Your task to perform on an android device: turn pop-ups on in chrome Image 0: 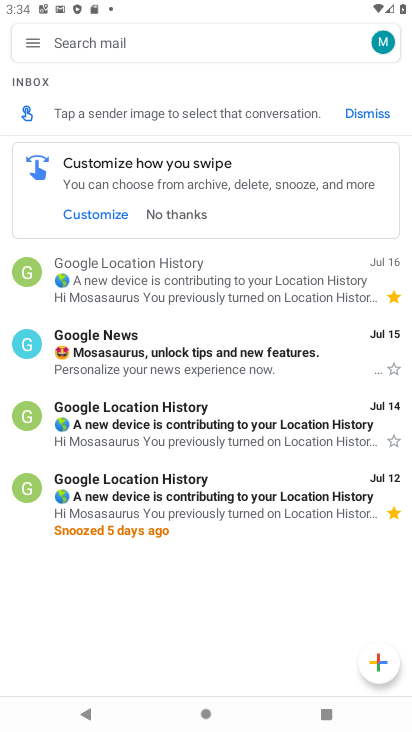
Step 0: press home button
Your task to perform on an android device: turn pop-ups on in chrome Image 1: 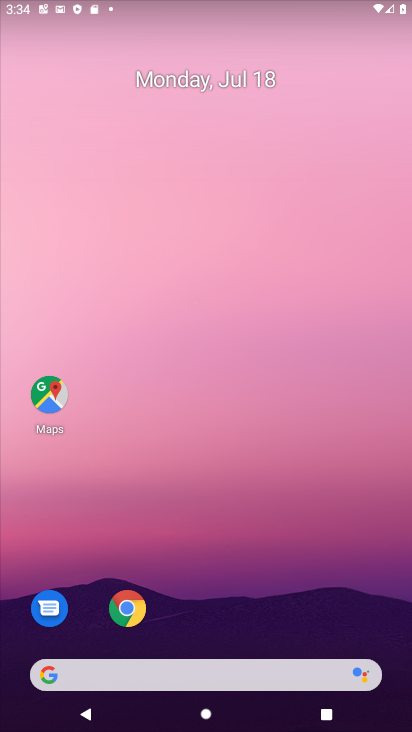
Step 1: drag from (214, 637) to (253, 285)
Your task to perform on an android device: turn pop-ups on in chrome Image 2: 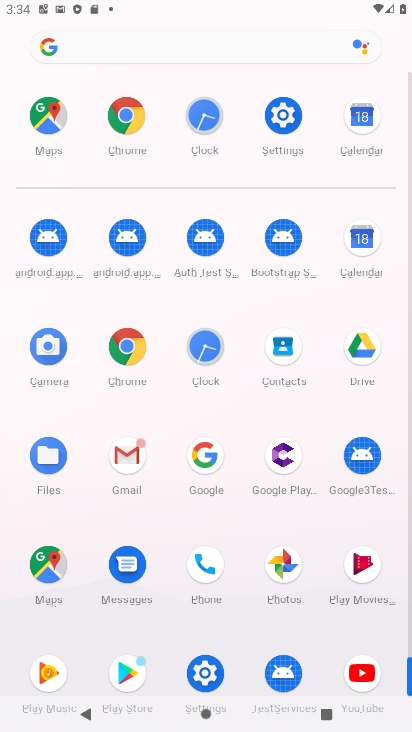
Step 2: click (123, 358)
Your task to perform on an android device: turn pop-ups on in chrome Image 3: 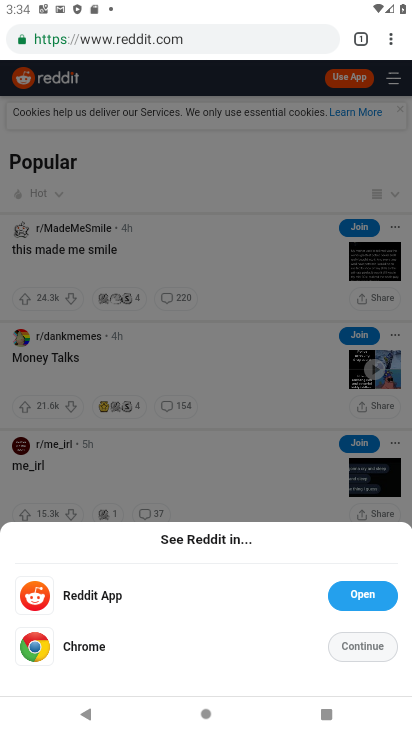
Step 3: click (396, 44)
Your task to perform on an android device: turn pop-ups on in chrome Image 4: 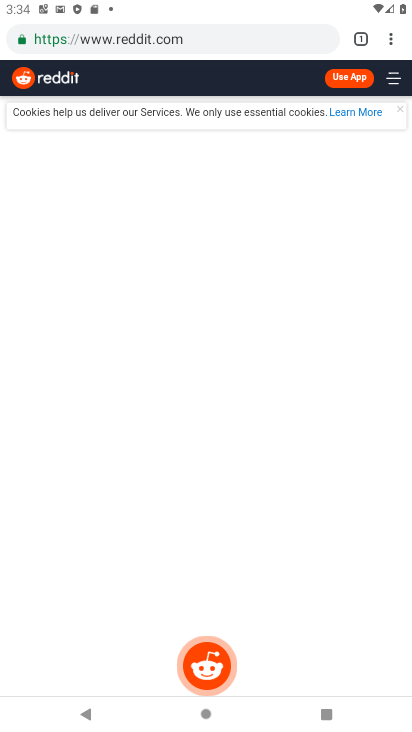
Step 4: click (395, 43)
Your task to perform on an android device: turn pop-ups on in chrome Image 5: 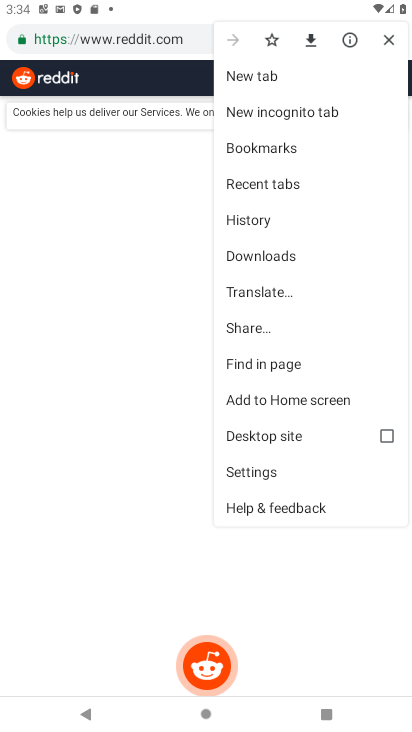
Step 5: click (256, 477)
Your task to perform on an android device: turn pop-ups on in chrome Image 6: 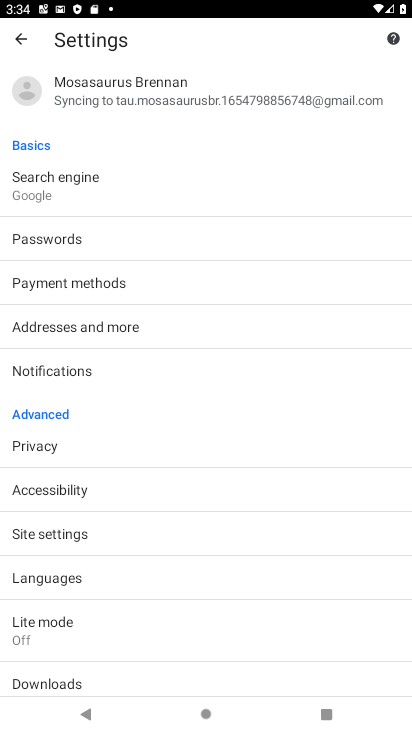
Step 6: drag from (148, 573) to (146, 339)
Your task to perform on an android device: turn pop-ups on in chrome Image 7: 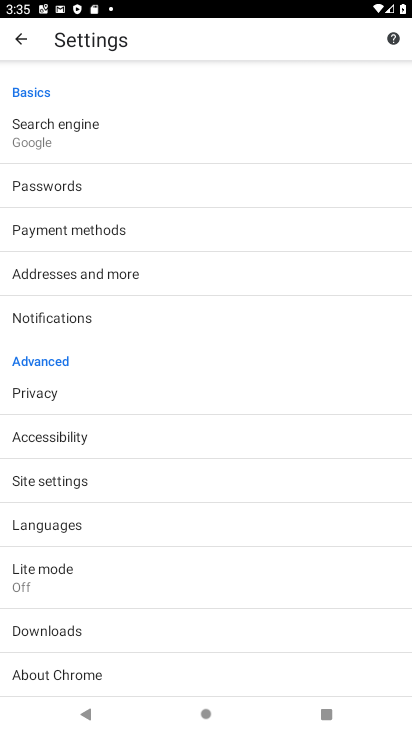
Step 7: click (79, 486)
Your task to perform on an android device: turn pop-ups on in chrome Image 8: 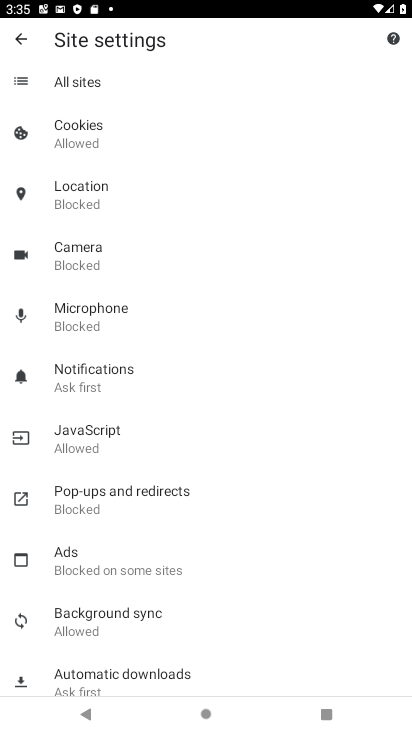
Step 8: click (168, 500)
Your task to perform on an android device: turn pop-ups on in chrome Image 9: 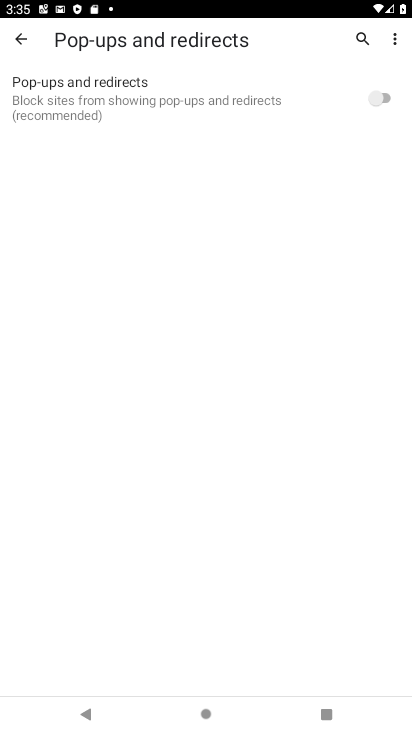
Step 9: click (386, 94)
Your task to perform on an android device: turn pop-ups on in chrome Image 10: 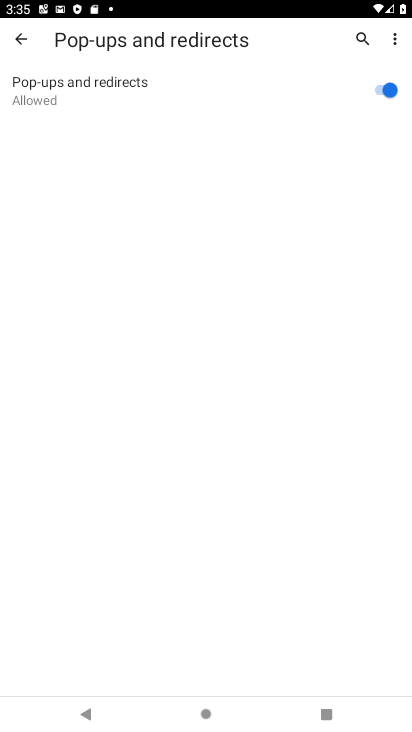
Step 10: task complete